Your task to perform on an android device: turn vacation reply on in the gmail app Image 0: 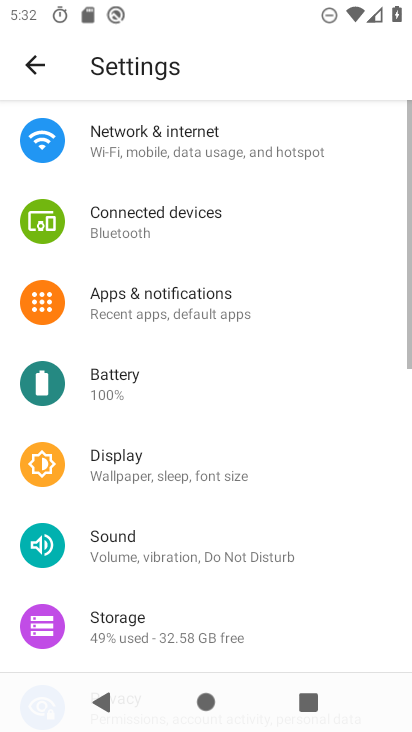
Step 0: press home button
Your task to perform on an android device: turn vacation reply on in the gmail app Image 1: 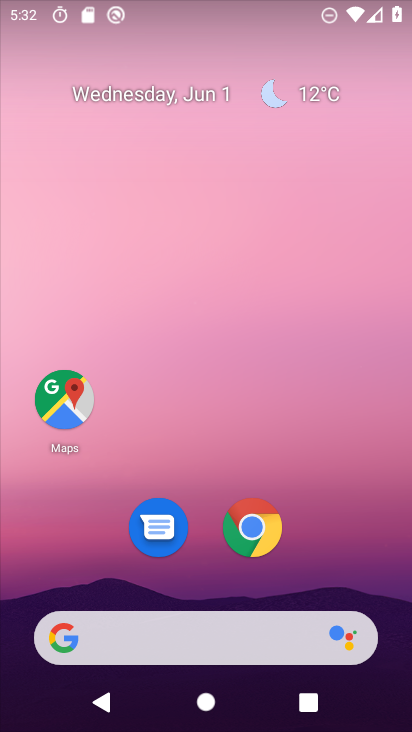
Step 1: drag from (195, 578) to (199, 133)
Your task to perform on an android device: turn vacation reply on in the gmail app Image 2: 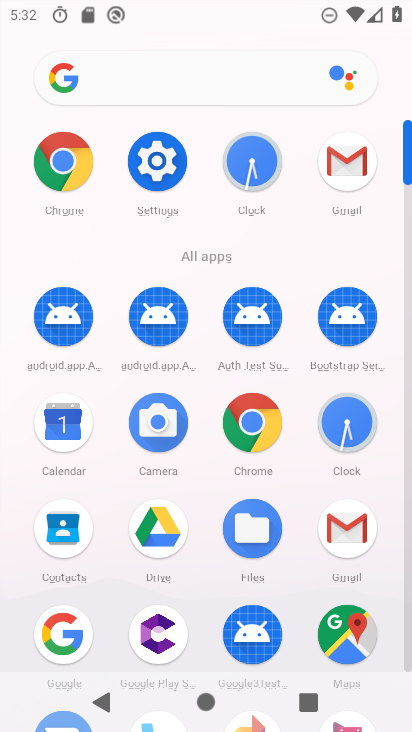
Step 2: click (336, 162)
Your task to perform on an android device: turn vacation reply on in the gmail app Image 3: 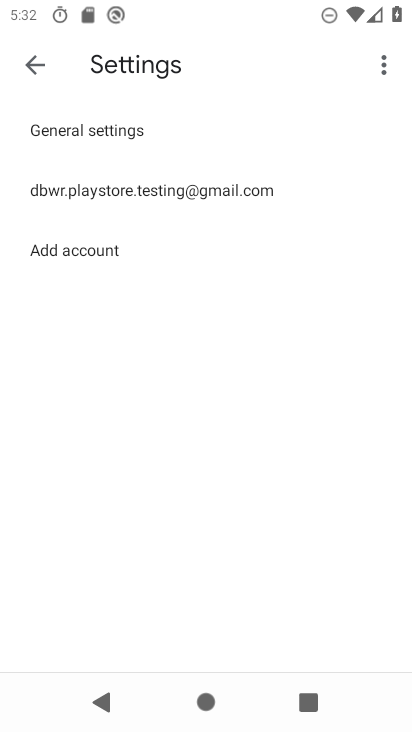
Step 3: click (225, 208)
Your task to perform on an android device: turn vacation reply on in the gmail app Image 4: 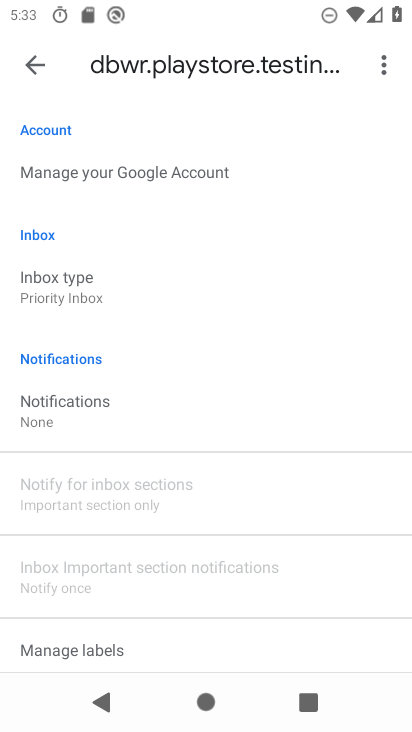
Step 4: drag from (137, 429) to (196, 127)
Your task to perform on an android device: turn vacation reply on in the gmail app Image 5: 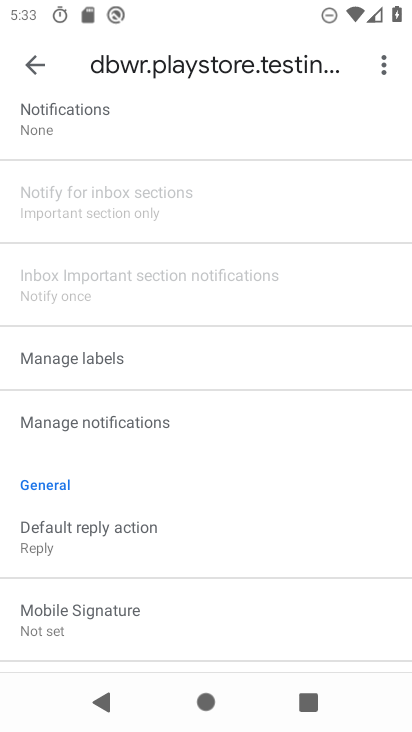
Step 5: drag from (90, 595) to (198, 210)
Your task to perform on an android device: turn vacation reply on in the gmail app Image 6: 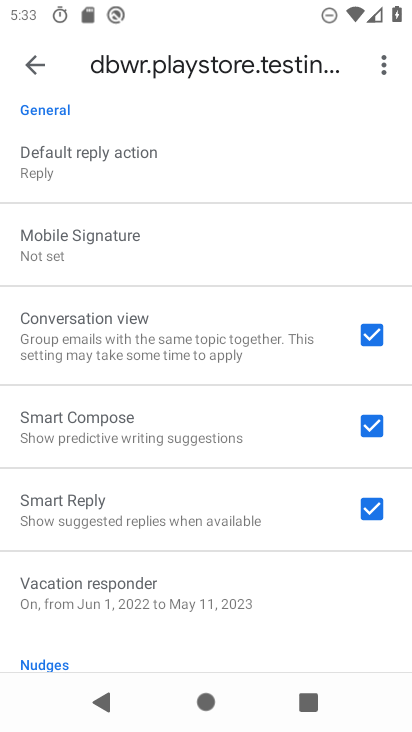
Step 6: click (234, 595)
Your task to perform on an android device: turn vacation reply on in the gmail app Image 7: 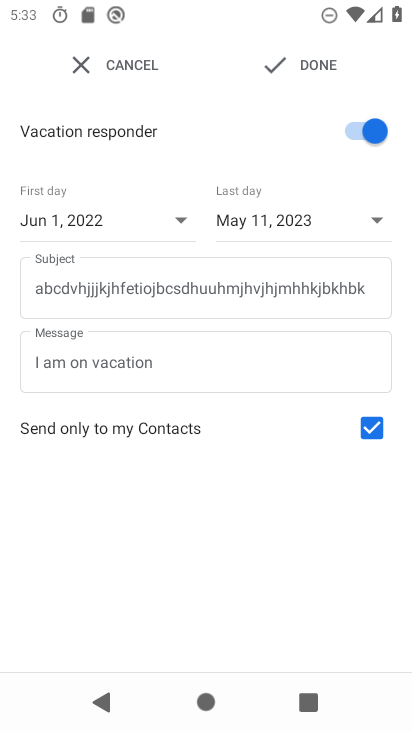
Step 7: click (340, 68)
Your task to perform on an android device: turn vacation reply on in the gmail app Image 8: 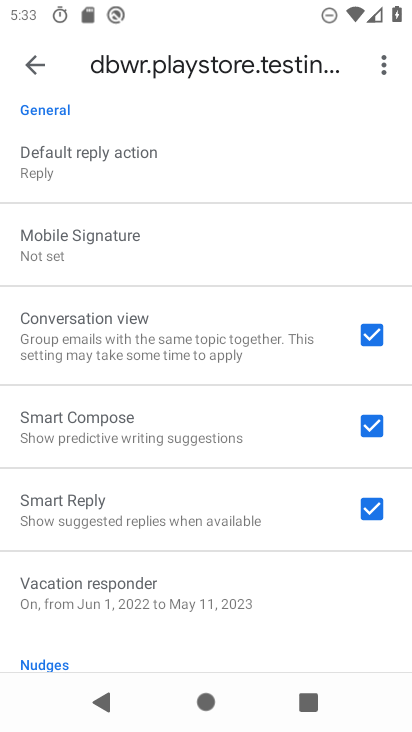
Step 8: task complete